Your task to perform on an android device: toggle location history Image 0: 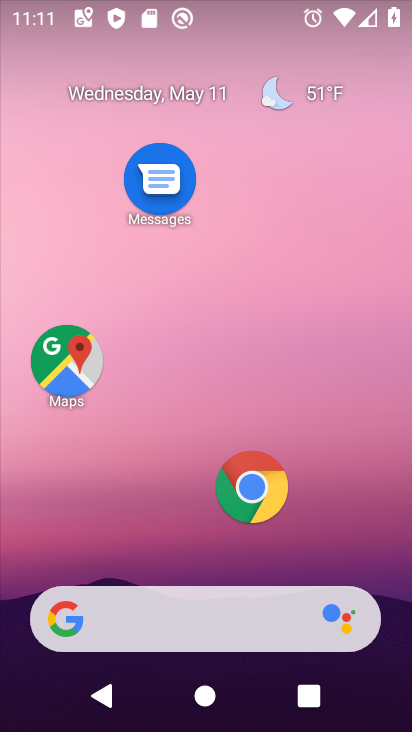
Step 0: drag from (226, 566) to (259, 174)
Your task to perform on an android device: toggle location history Image 1: 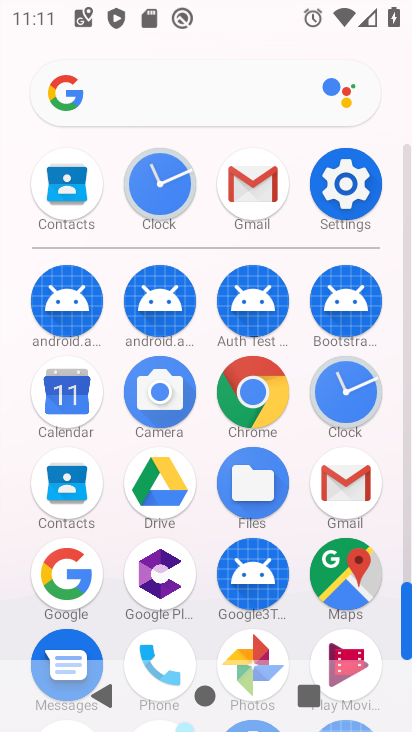
Step 1: click (367, 184)
Your task to perform on an android device: toggle location history Image 2: 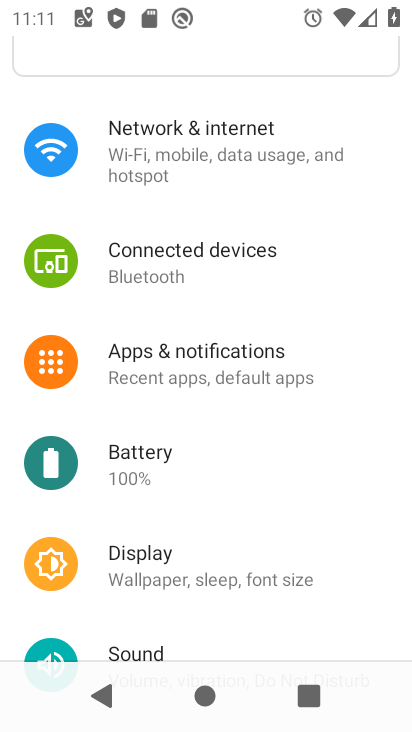
Step 2: drag from (163, 582) to (220, 248)
Your task to perform on an android device: toggle location history Image 3: 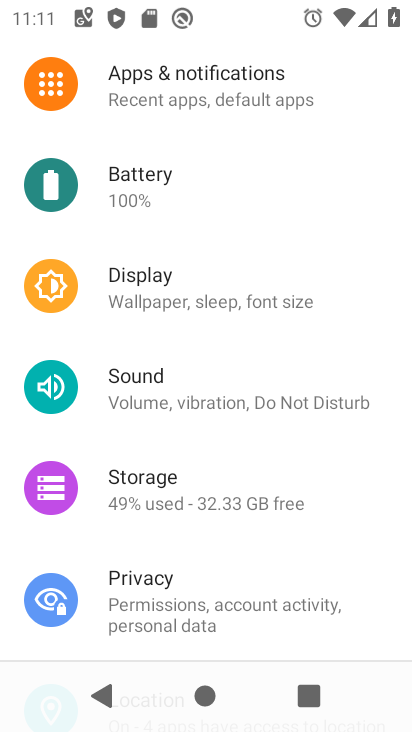
Step 3: drag from (185, 577) to (197, 259)
Your task to perform on an android device: toggle location history Image 4: 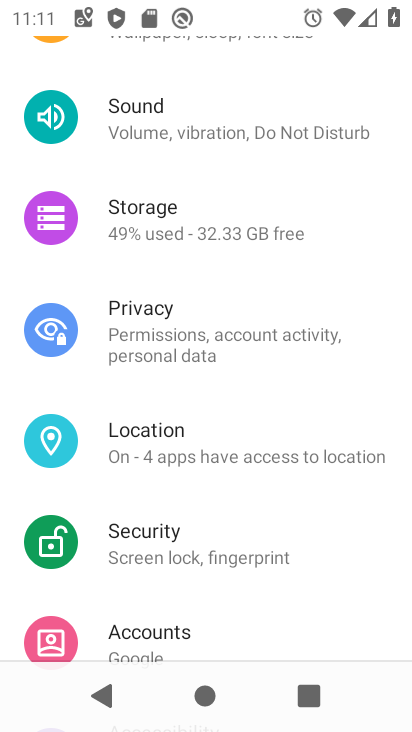
Step 4: click (161, 443)
Your task to perform on an android device: toggle location history Image 5: 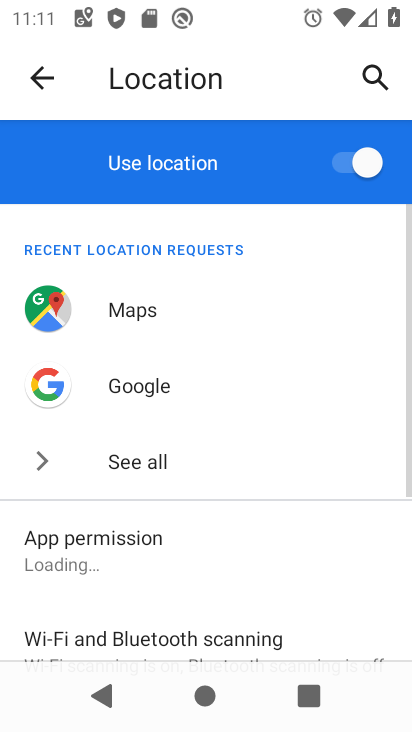
Step 5: drag from (239, 589) to (246, 141)
Your task to perform on an android device: toggle location history Image 6: 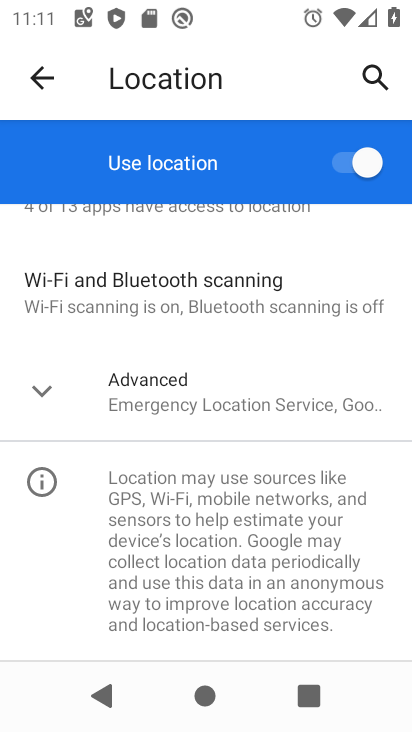
Step 6: click (173, 398)
Your task to perform on an android device: toggle location history Image 7: 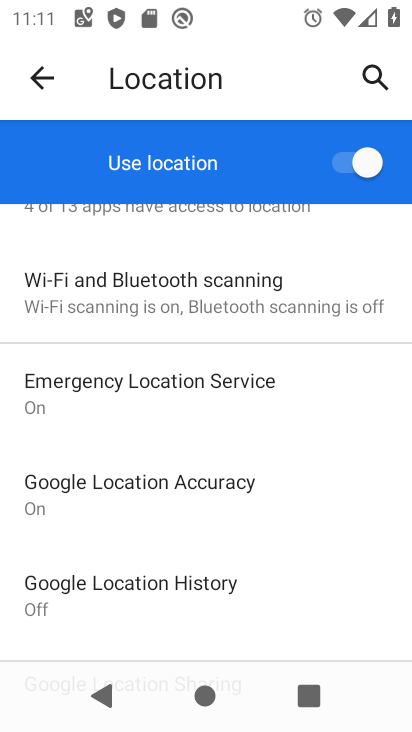
Step 7: click (187, 600)
Your task to perform on an android device: toggle location history Image 8: 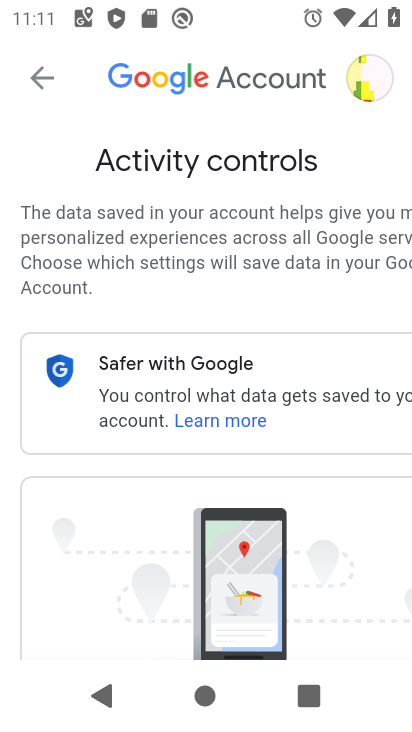
Step 8: drag from (146, 576) to (176, 223)
Your task to perform on an android device: toggle location history Image 9: 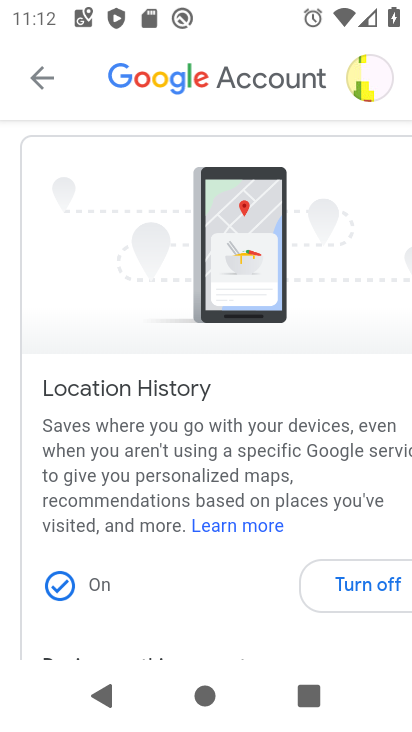
Step 9: click (366, 579)
Your task to perform on an android device: toggle location history Image 10: 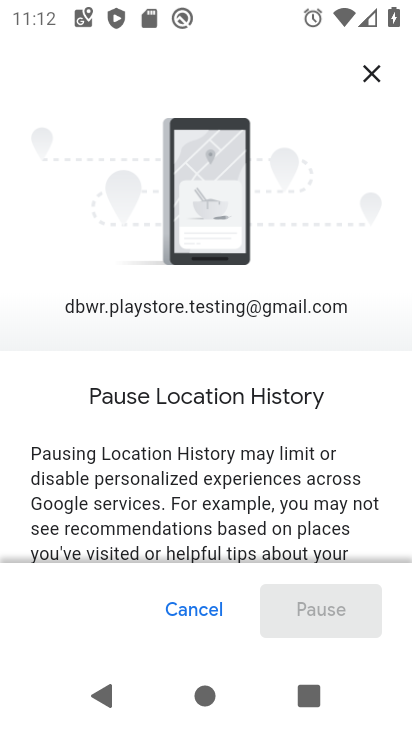
Step 10: drag from (256, 486) to (261, 115)
Your task to perform on an android device: toggle location history Image 11: 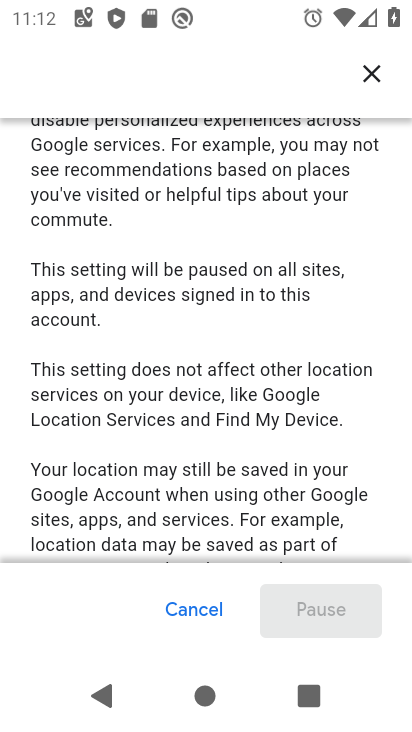
Step 11: drag from (196, 498) to (207, 169)
Your task to perform on an android device: toggle location history Image 12: 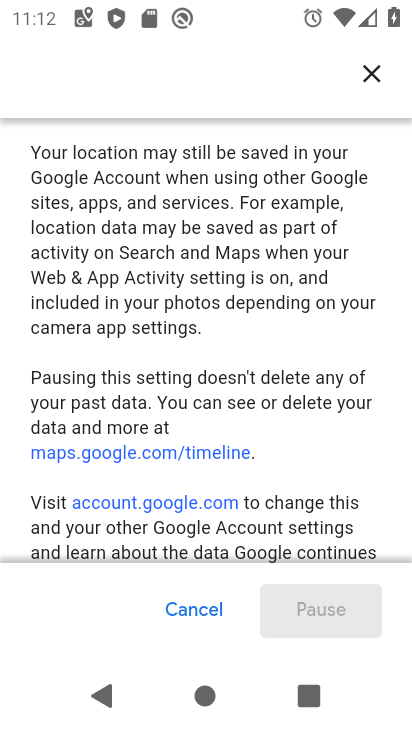
Step 12: drag from (262, 518) to (262, 194)
Your task to perform on an android device: toggle location history Image 13: 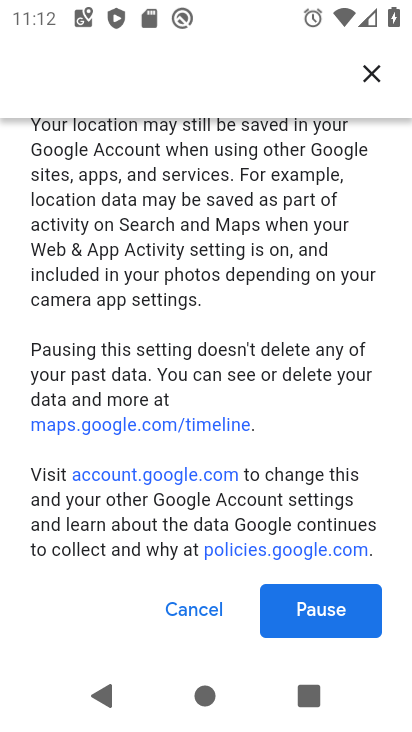
Step 13: drag from (273, 501) to (289, 232)
Your task to perform on an android device: toggle location history Image 14: 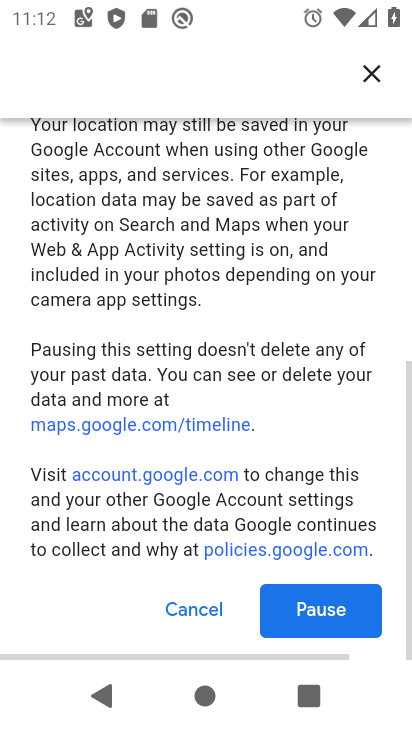
Step 14: click (302, 587)
Your task to perform on an android device: toggle location history Image 15: 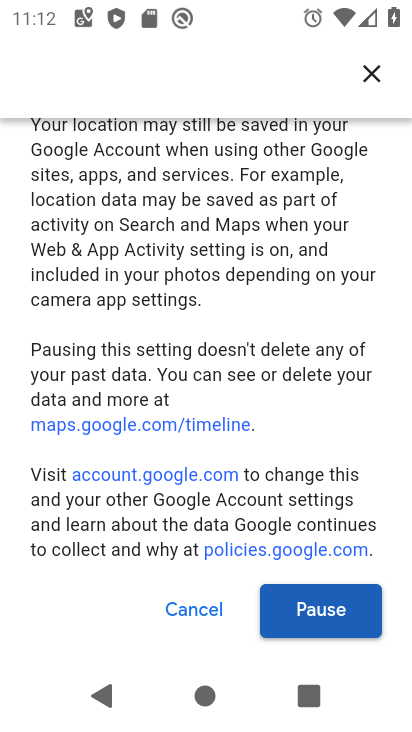
Step 15: click (324, 602)
Your task to perform on an android device: toggle location history Image 16: 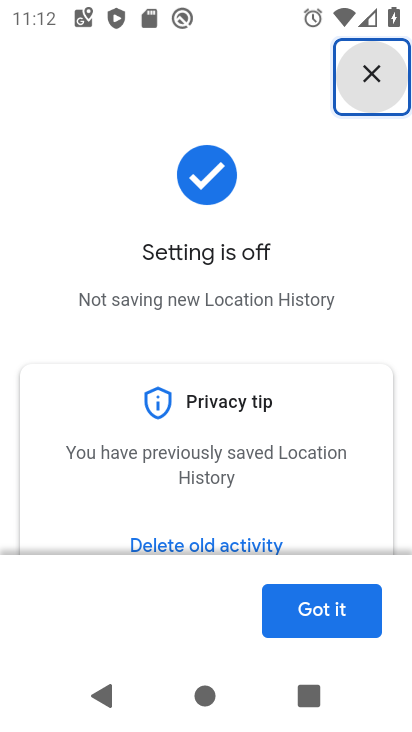
Step 16: task complete